Your task to perform on an android device: check android version Image 0: 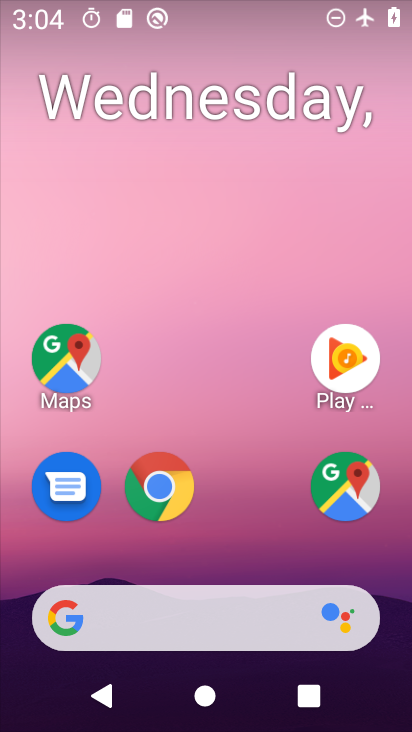
Step 0: press home button
Your task to perform on an android device: check android version Image 1: 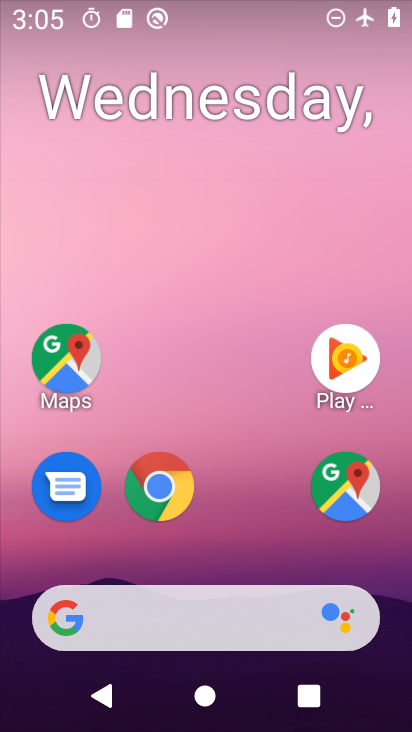
Step 1: drag from (278, 536) to (265, 122)
Your task to perform on an android device: check android version Image 2: 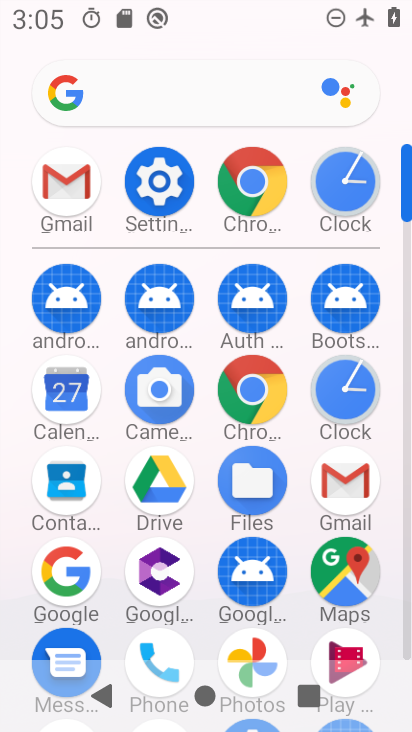
Step 2: click (157, 195)
Your task to perform on an android device: check android version Image 3: 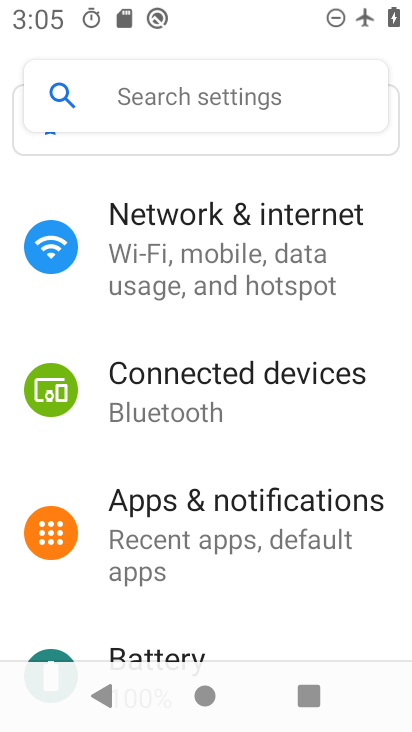
Step 3: drag from (388, 349) to (389, 297)
Your task to perform on an android device: check android version Image 4: 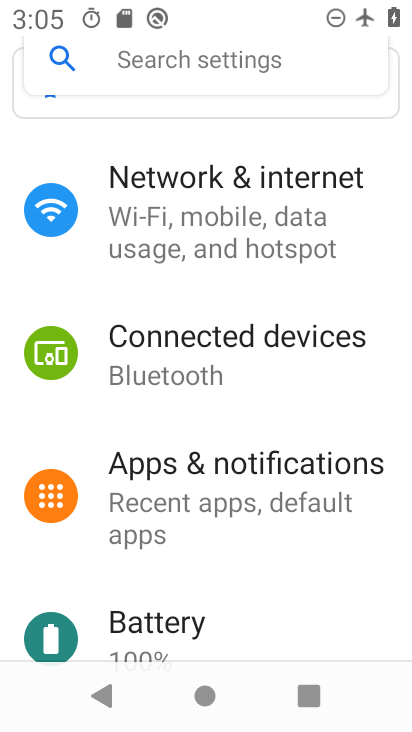
Step 4: drag from (380, 344) to (383, 295)
Your task to perform on an android device: check android version Image 5: 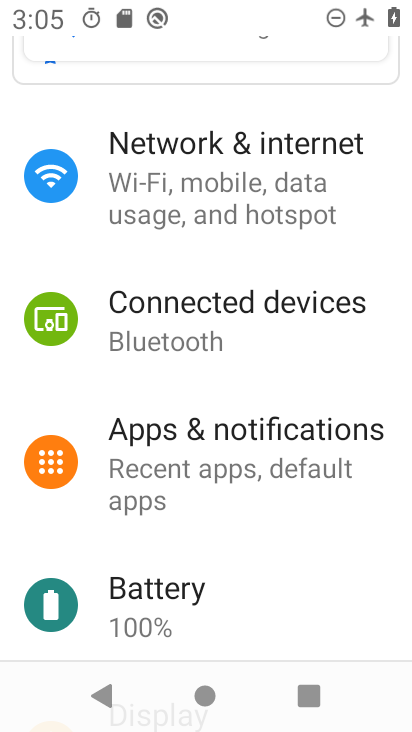
Step 5: drag from (385, 363) to (387, 316)
Your task to perform on an android device: check android version Image 6: 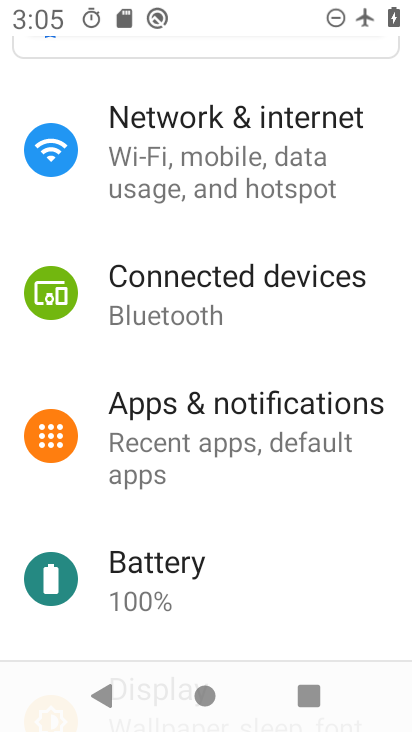
Step 6: drag from (387, 362) to (385, 314)
Your task to perform on an android device: check android version Image 7: 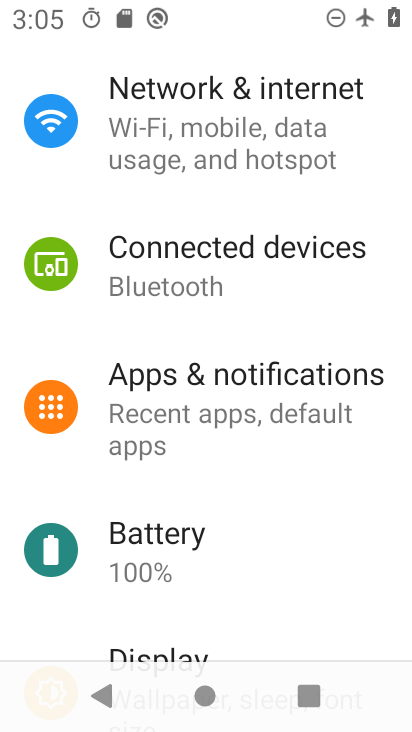
Step 7: drag from (382, 367) to (383, 321)
Your task to perform on an android device: check android version Image 8: 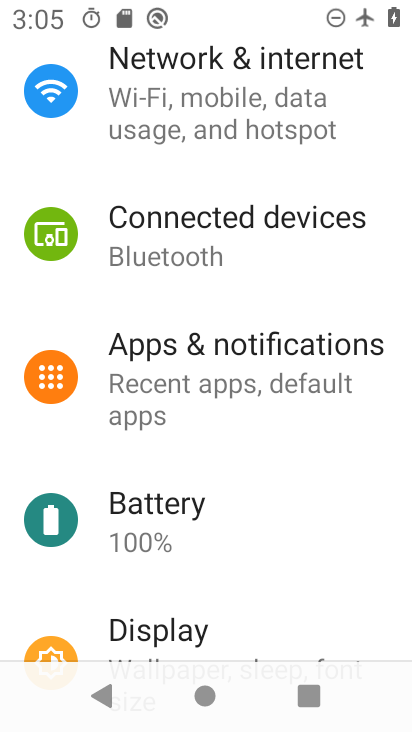
Step 8: drag from (382, 388) to (382, 341)
Your task to perform on an android device: check android version Image 9: 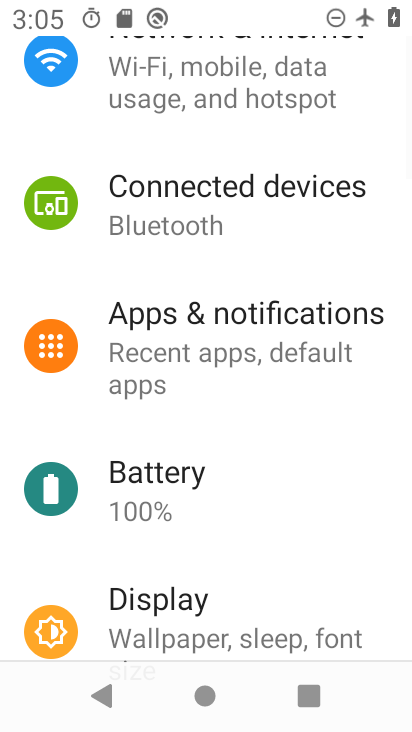
Step 9: drag from (385, 387) to (387, 340)
Your task to perform on an android device: check android version Image 10: 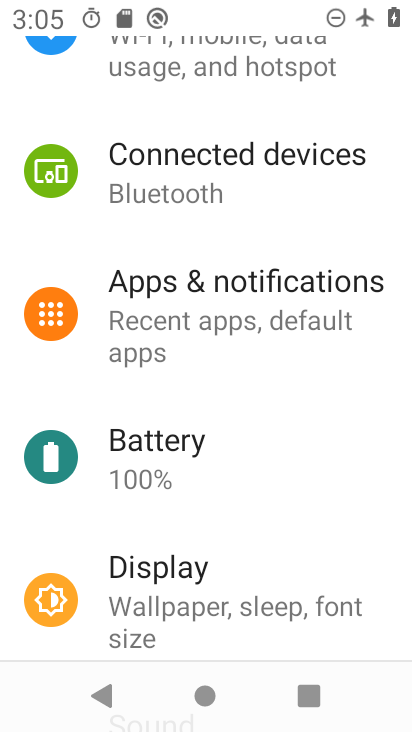
Step 10: drag from (381, 385) to (380, 342)
Your task to perform on an android device: check android version Image 11: 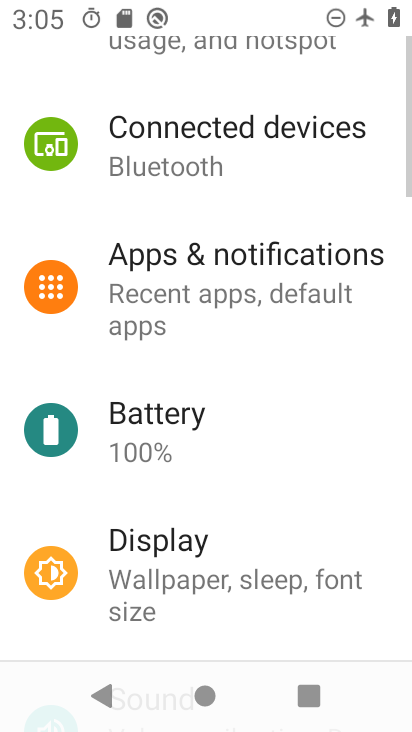
Step 11: drag from (373, 394) to (372, 342)
Your task to perform on an android device: check android version Image 12: 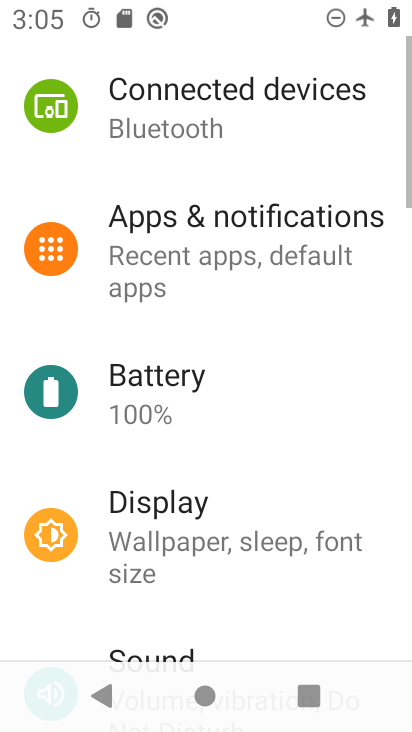
Step 12: drag from (372, 392) to (375, 338)
Your task to perform on an android device: check android version Image 13: 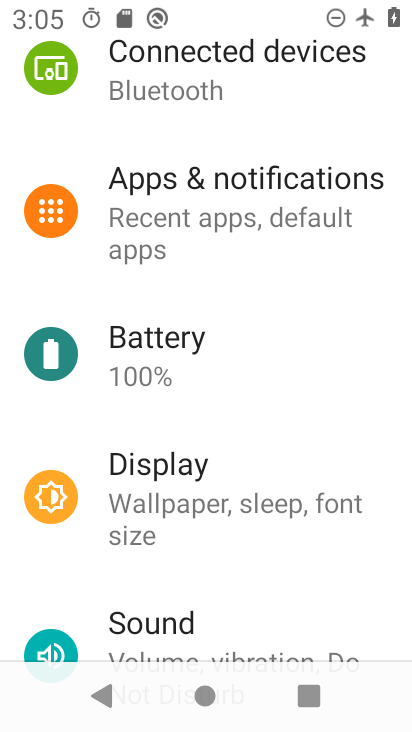
Step 13: drag from (371, 375) to (370, 335)
Your task to perform on an android device: check android version Image 14: 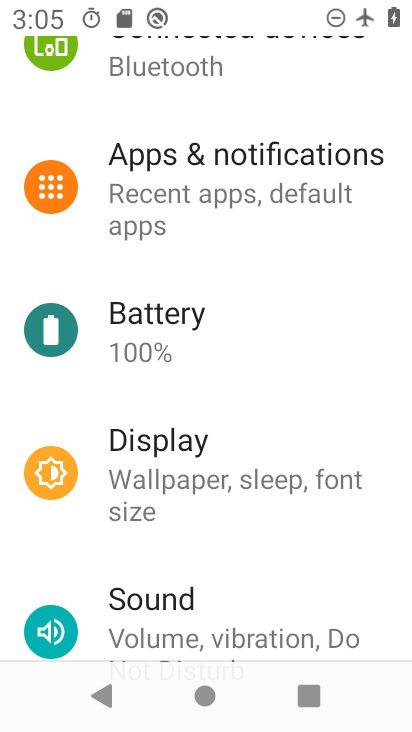
Step 14: click (366, 385)
Your task to perform on an android device: check android version Image 15: 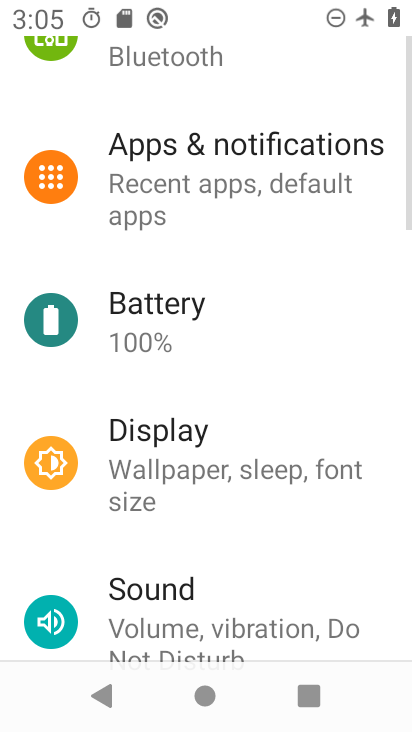
Step 15: drag from (356, 414) to (359, 353)
Your task to perform on an android device: check android version Image 16: 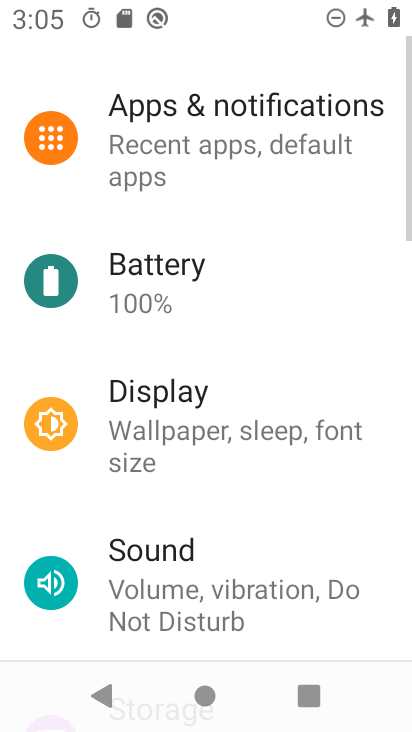
Step 16: drag from (367, 463) to (375, 390)
Your task to perform on an android device: check android version Image 17: 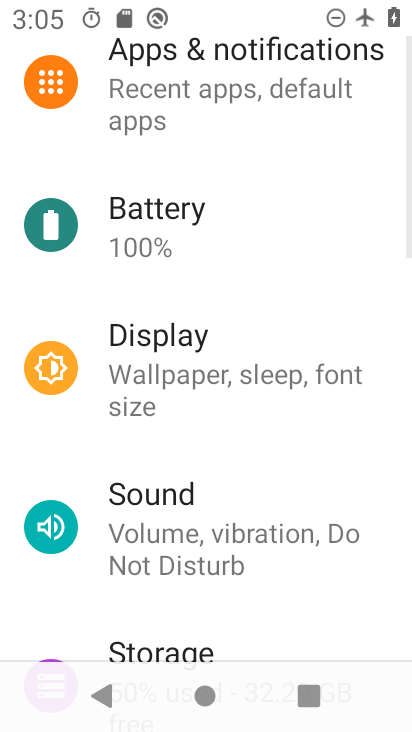
Step 17: drag from (366, 447) to (369, 391)
Your task to perform on an android device: check android version Image 18: 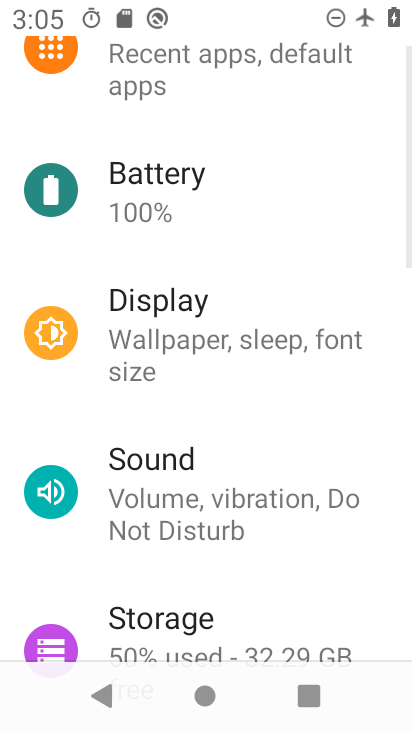
Step 18: drag from (375, 440) to (375, 377)
Your task to perform on an android device: check android version Image 19: 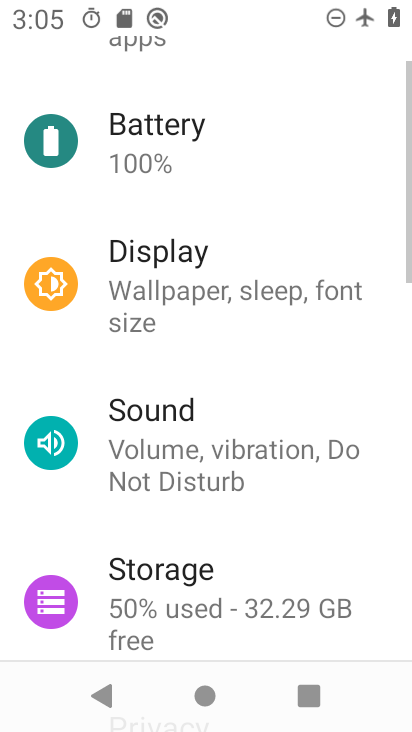
Step 19: drag from (373, 463) to (370, 399)
Your task to perform on an android device: check android version Image 20: 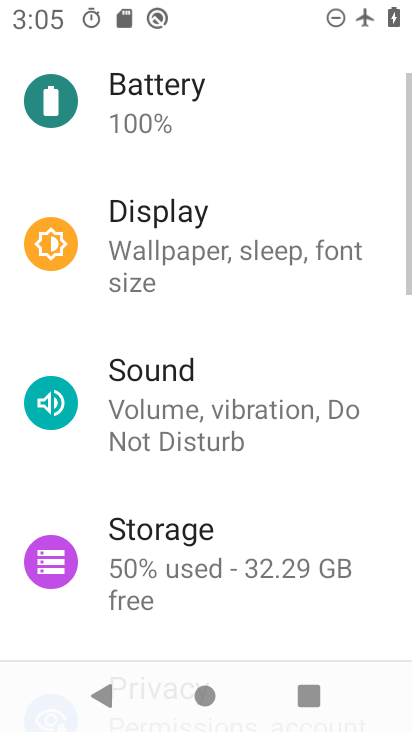
Step 20: drag from (361, 461) to (357, 401)
Your task to perform on an android device: check android version Image 21: 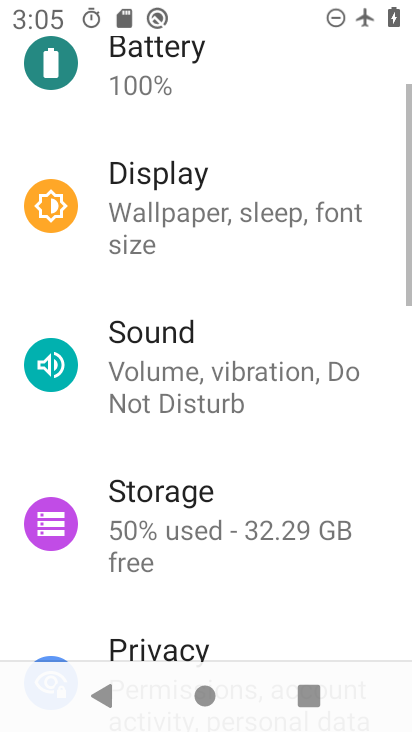
Step 21: drag from (370, 471) to (369, 420)
Your task to perform on an android device: check android version Image 22: 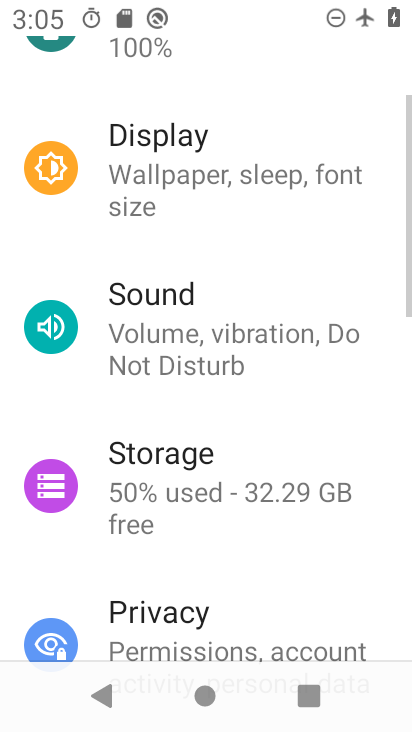
Step 22: drag from (369, 502) to (375, 440)
Your task to perform on an android device: check android version Image 23: 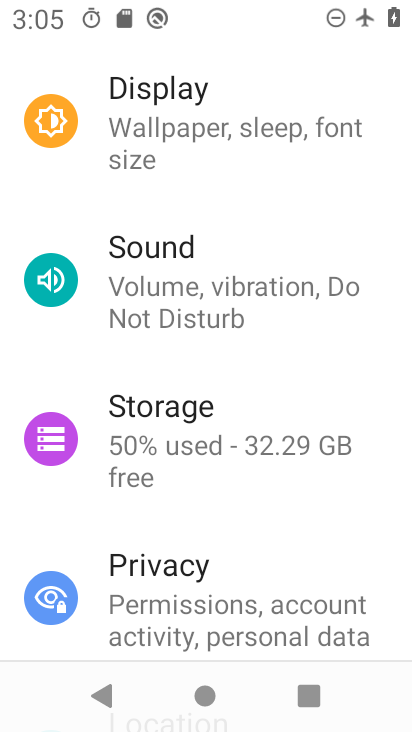
Step 23: drag from (368, 539) to (366, 476)
Your task to perform on an android device: check android version Image 24: 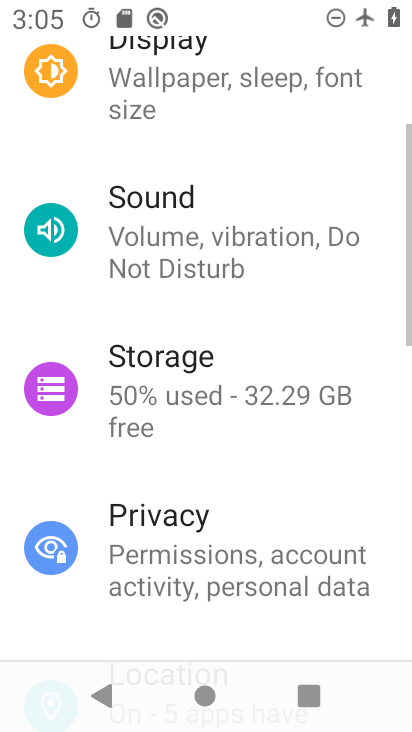
Step 24: drag from (365, 543) to (373, 461)
Your task to perform on an android device: check android version Image 25: 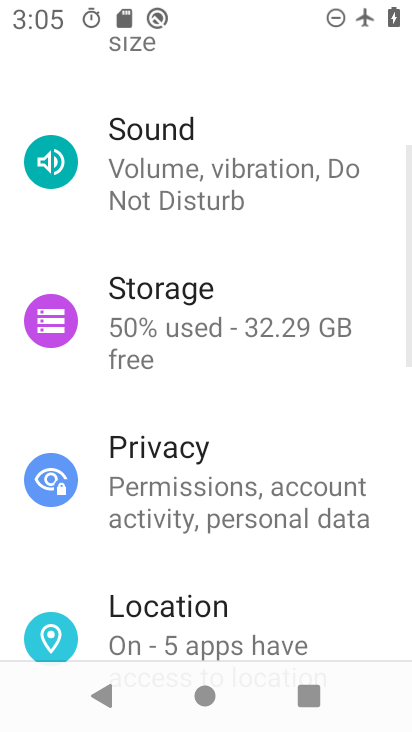
Step 25: drag from (359, 563) to (379, 470)
Your task to perform on an android device: check android version Image 26: 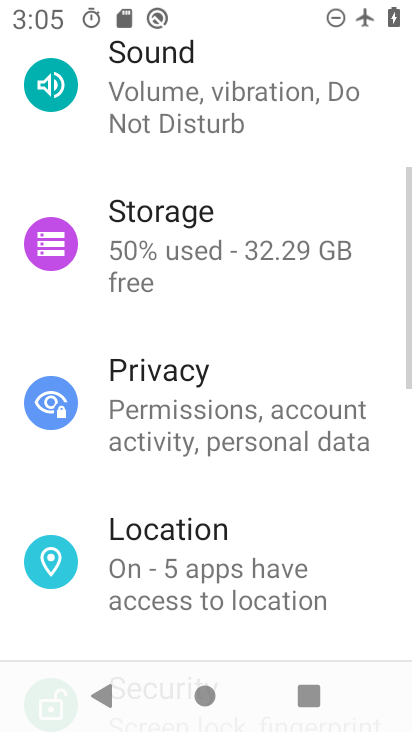
Step 26: drag from (368, 562) to (371, 497)
Your task to perform on an android device: check android version Image 27: 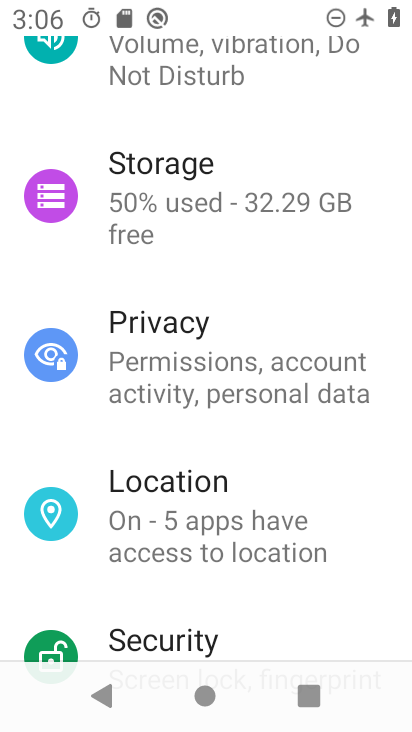
Step 27: drag from (364, 582) to (368, 505)
Your task to perform on an android device: check android version Image 28: 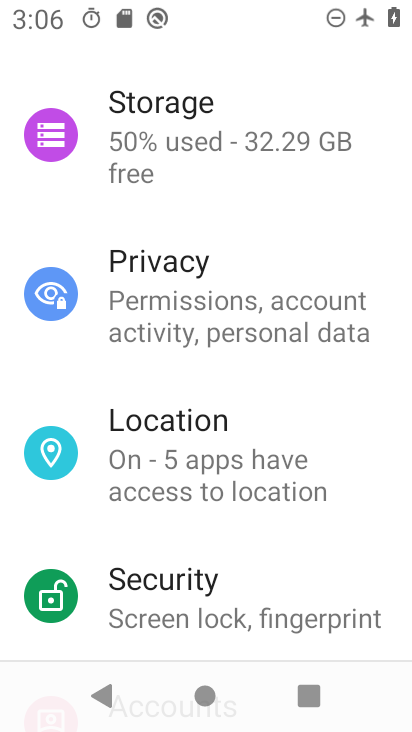
Step 28: drag from (348, 571) to (360, 483)
Your task to perform on an android device: check android version Image 29: 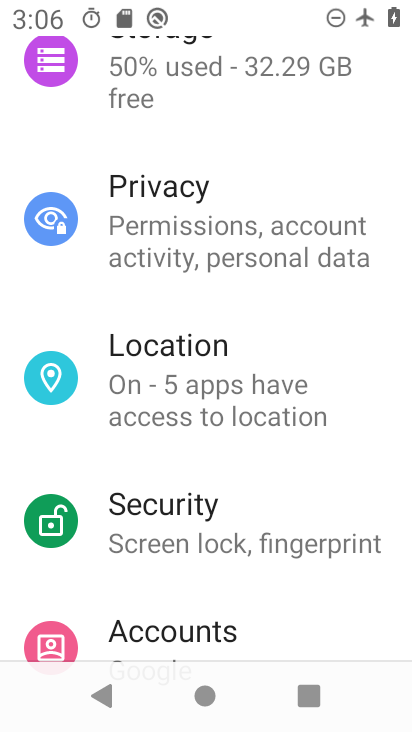
Step 29: drag from (349, 589) to (355, 492)
Your task to perform on an android device: check android version Image 30: 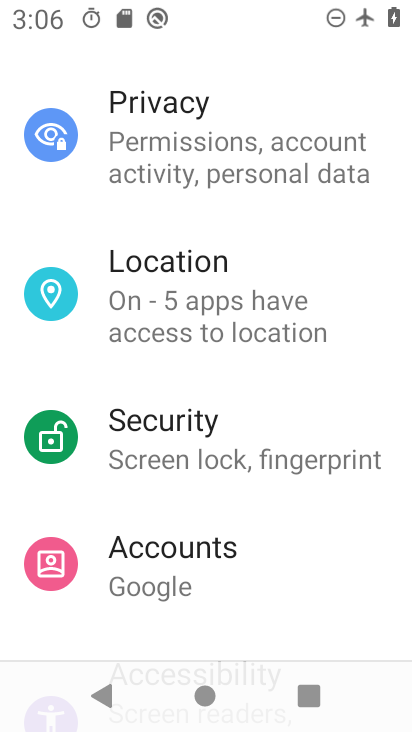
Step 30: drag from (332, 569) to (327, 471)
Your task to perform on an android device: check android version Image 31: 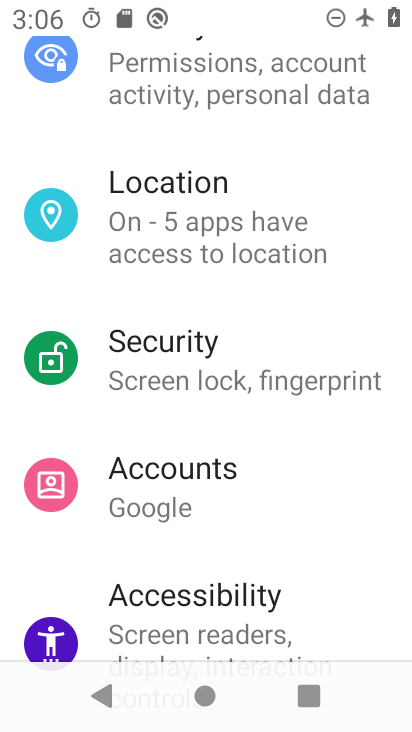
Step 31: drag from (337, 568) to (337, 406)
Your task to perform on an android device: check android version Image 32: 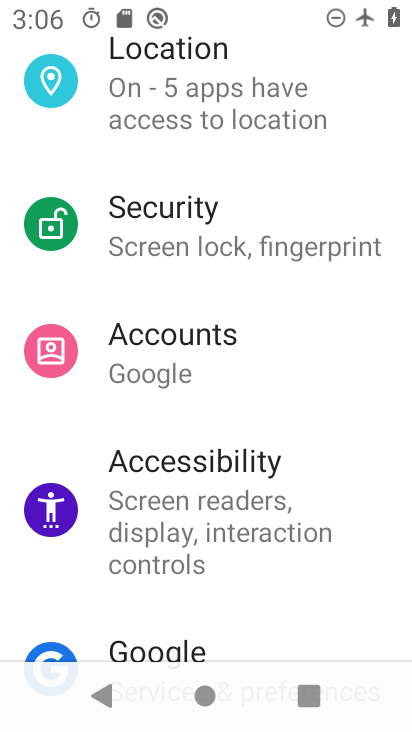
Step 32: drag from (329, 599) to (339, 431)
Your task to perform on an android device: check android version Image 33: 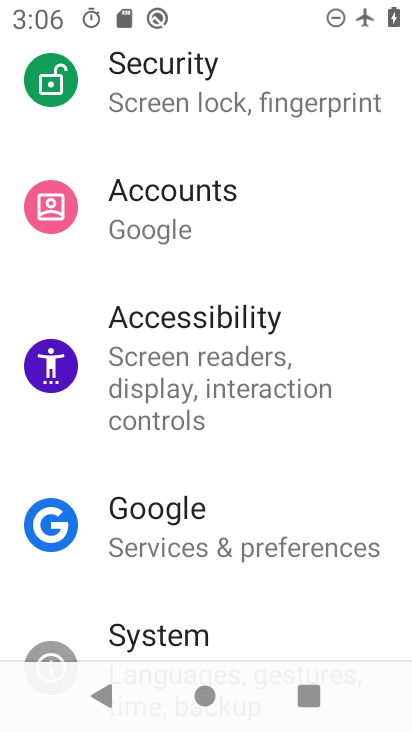
Step 33: drag from (333, 612) to (334, 475)
Your task to perform on an android device: check android version Image 34: 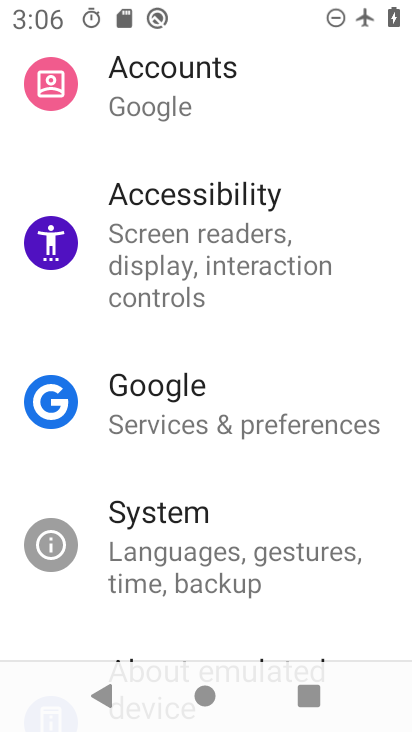
Step 34: click (327, 547)
Your task to perform on an android device: check android version Image 35: 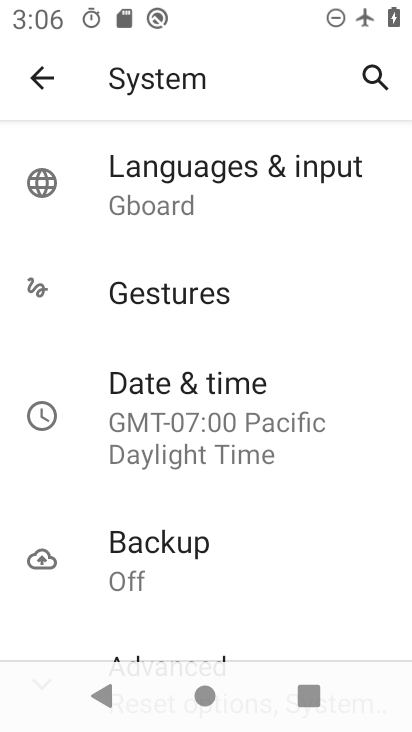
Step 35: drag from (327, 564) to (321, 383)
Your task to perform on an android device: check android version Image 36: 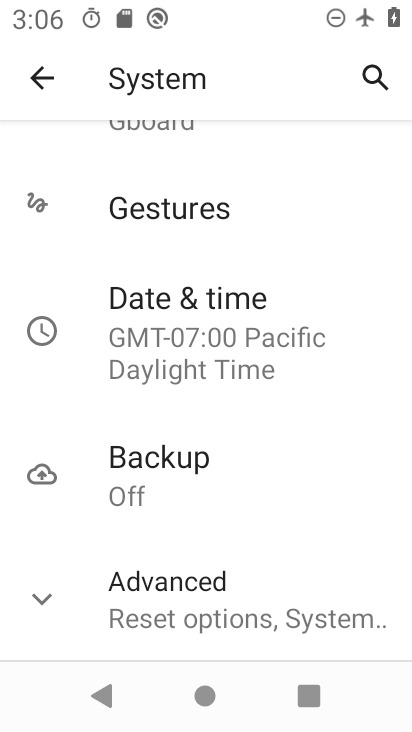
Step 36: click (325, 583)
Your task to perform on an android device: check android version Image 37: 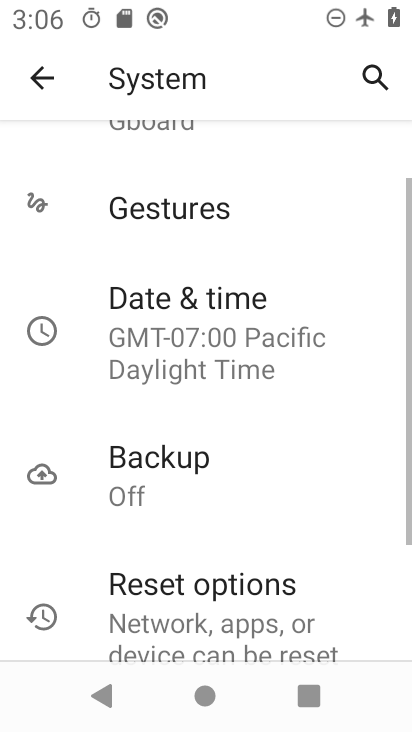
Step 37: drag from (325, 583) to (332, 332)
Your task to perform on an android device: check android version Image 38: 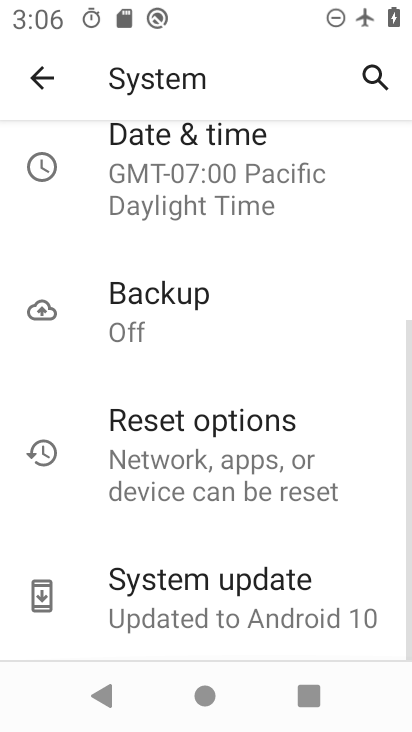
Step 38: click (337, 581)
Your task to perform on an android device: check android version Image 39: 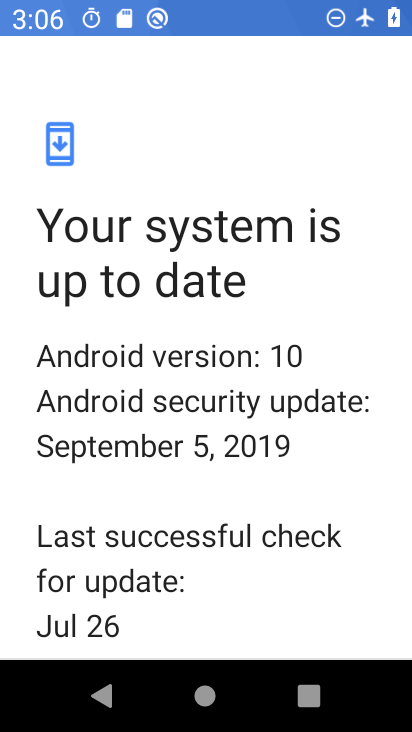
Step 39: task complete